Your task to perform on an android device: turn notification dots off Image 0: 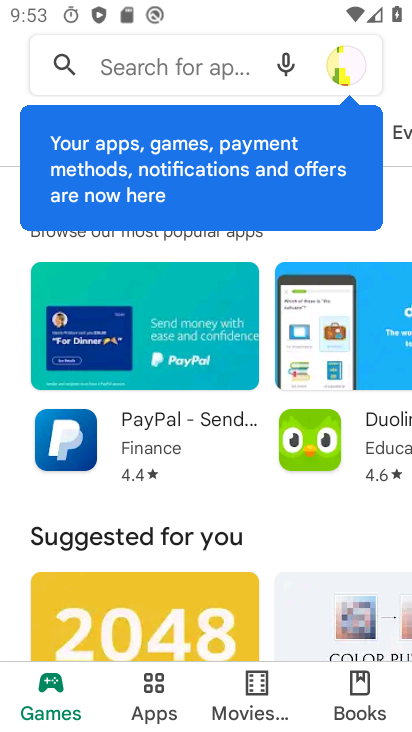
Step 0: press home button
Your task to perform on an android device: turn notification dots off Image 1: 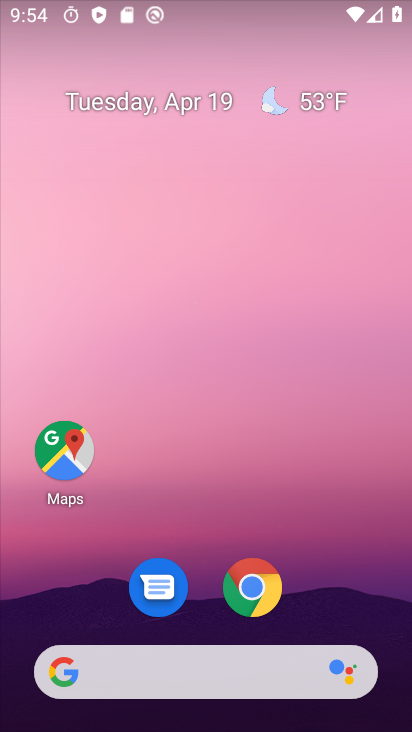
Step 1: drag from (382, 562) to (408, 93)
Your task to perform on an android device: turn notification dots off Image 2: 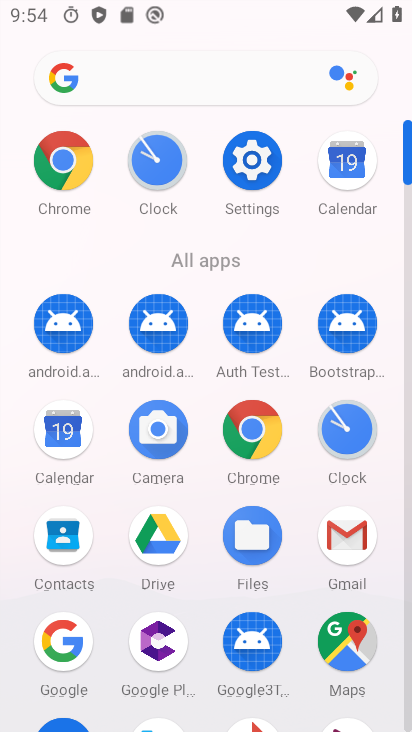
Step 2: click (247, 150)
Your task to perform on an android device: turn notification dots off Image 3: 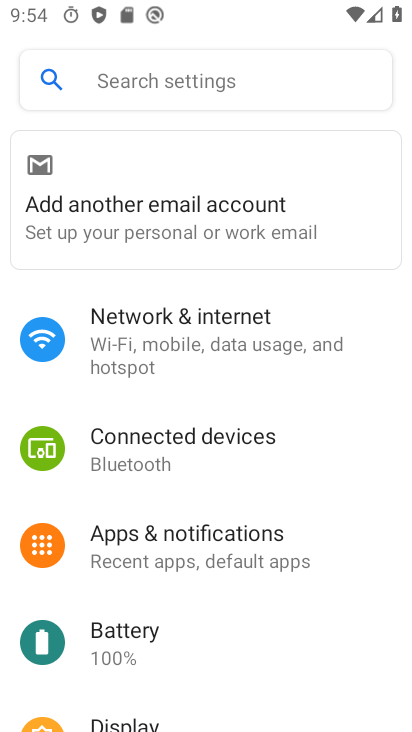
Step 3: click (215, 547)
Your task to perform on an android device: turn notification dots off Image 4: 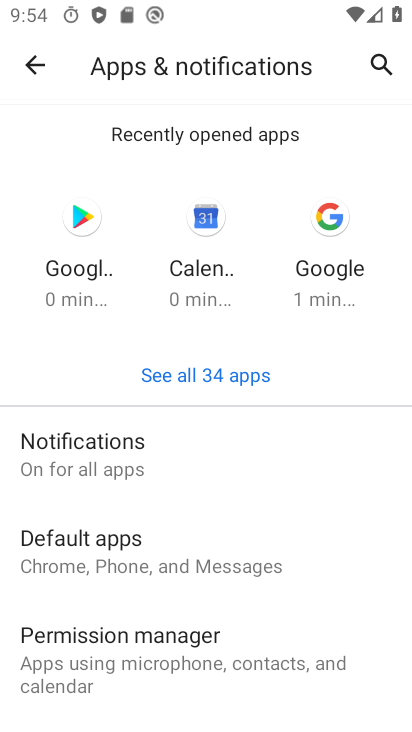
Step 4: drag from (219, 542) to (268, 191)
Your task to perform on an android device: turn notification dots off Image 5: 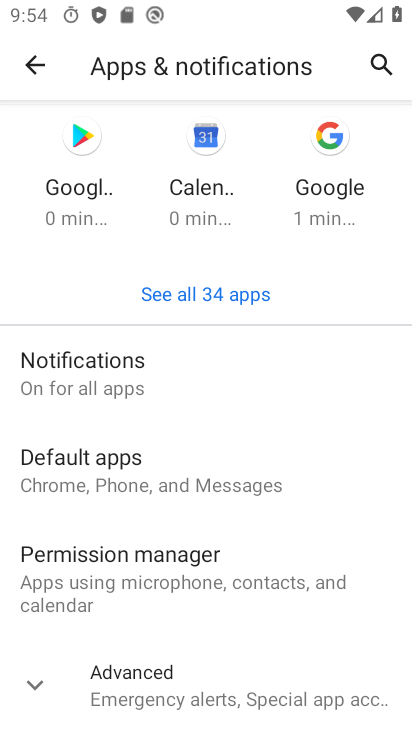
Step 5: click (78, 388)
Your task to perform on an android device: turn notification dots off Image 6: 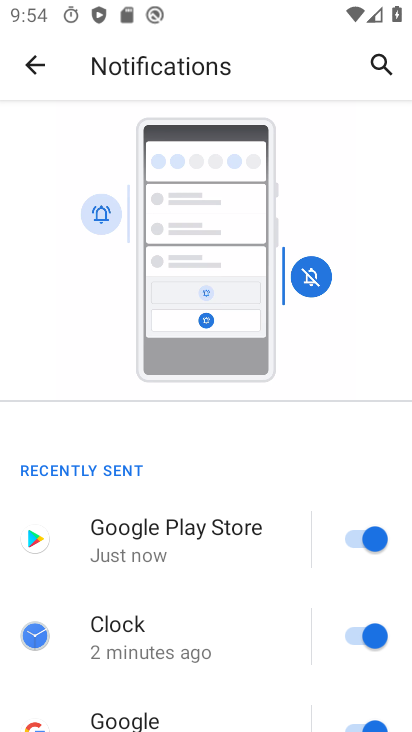
Step 6: drag from (76, 588) to (115, 232)
Your task to perform on an android device: turn notification dots off Image 7: 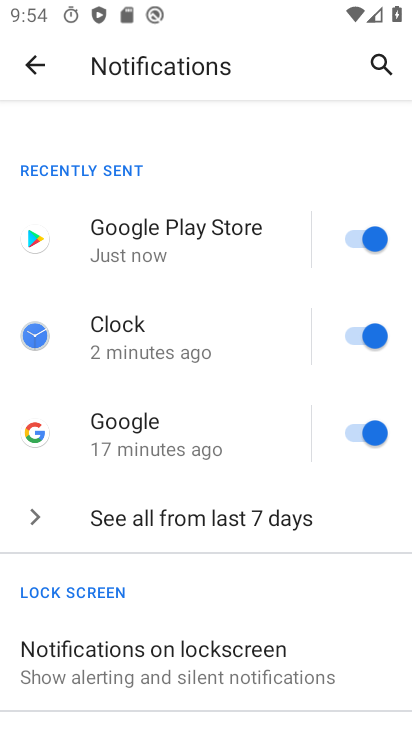
Step 7: drag from (140, 615) to (243, 252)
Your task to perform on an android device: turn notification dots off Image 8: 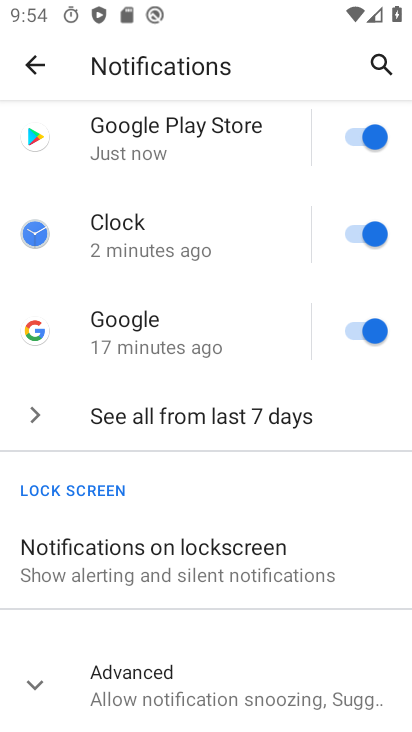
Step 8: click (185, 674)
Your task to perform on an android device: turn notification dots off Image 9: 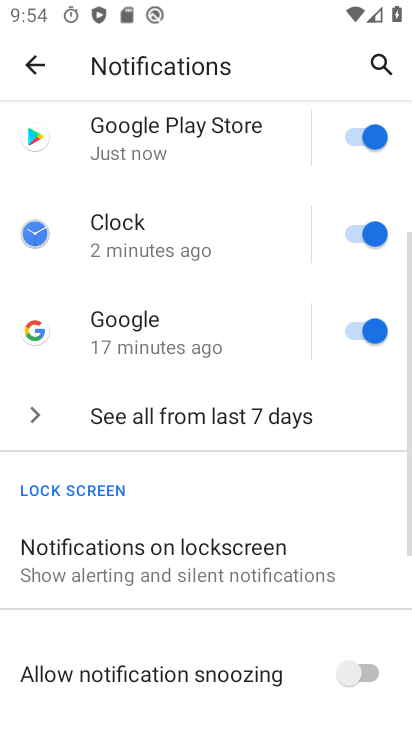
Step 9: drag from (182, 639) to (243, 276)
Your task to perform on an android device: turn notification dots off Image 10: 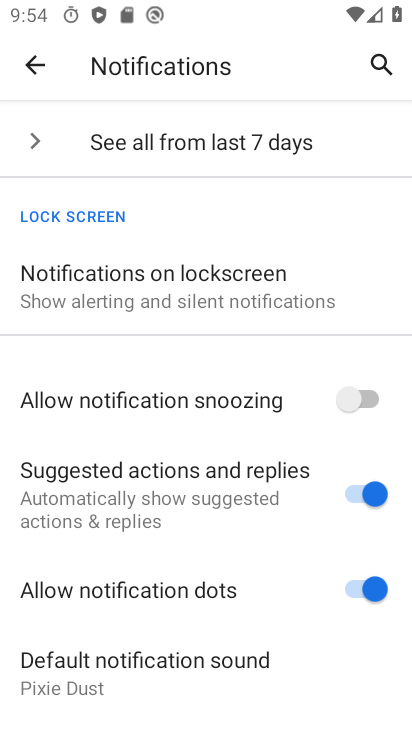
Step 10: click (359, 595)
Your task to perform on an android device: turn notification dots off Image 11: 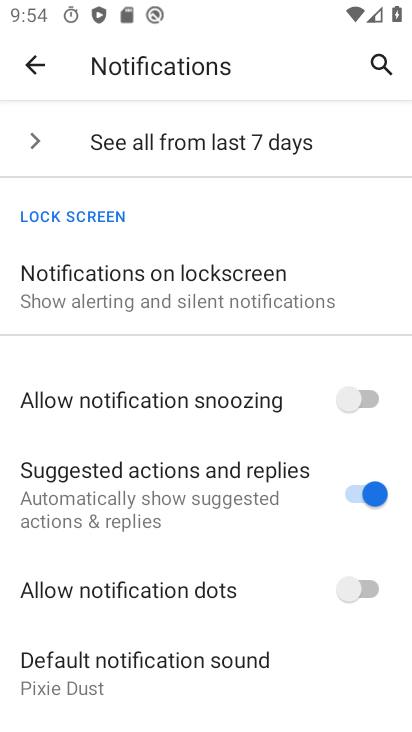
Step 11: task complete